Your task to perform on an android device: Open Google Maps Image 0: 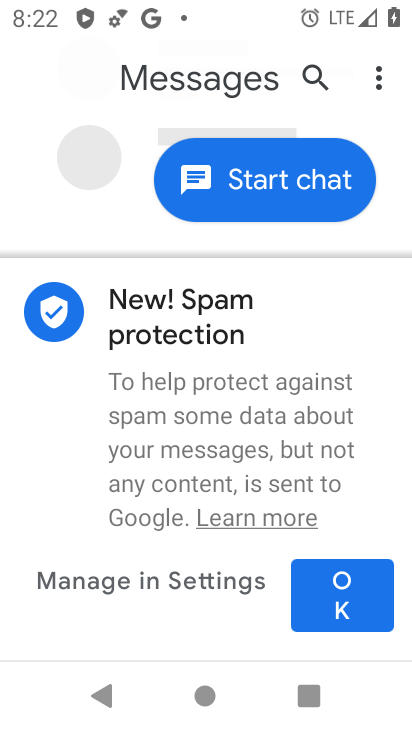
Step 0: press home button
Your task to perform on an android device: Open Google Maps Image 1: 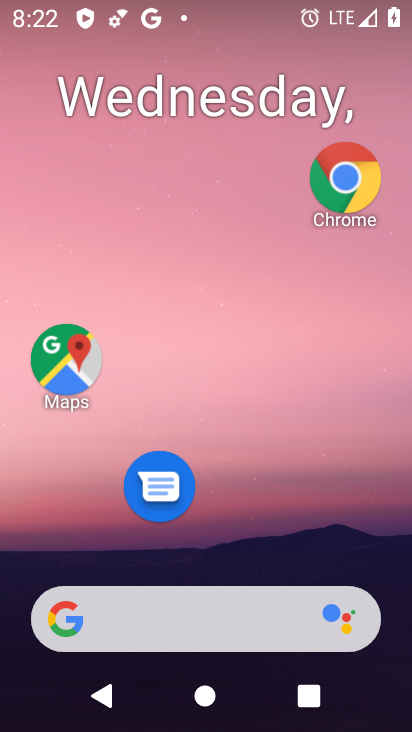
Step 1: drag from (172, 690) to (298, 178)
Your task to perform on an android device: Open Google Maps Image 2: 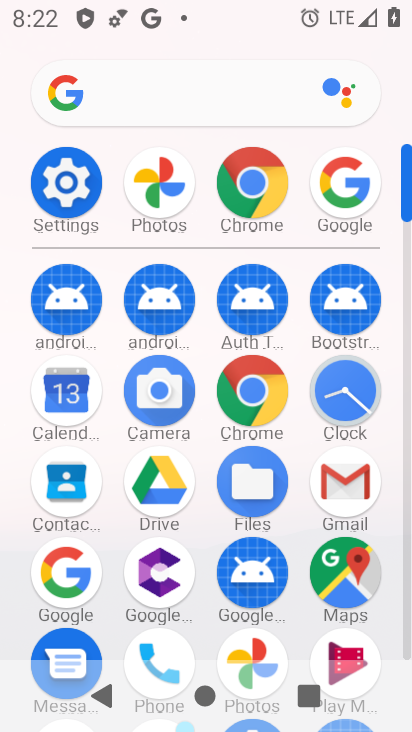
Step 2: drag from (214, 544) to (269, 286)
Your task to perform on an android device: Open Google Maps Image 3: 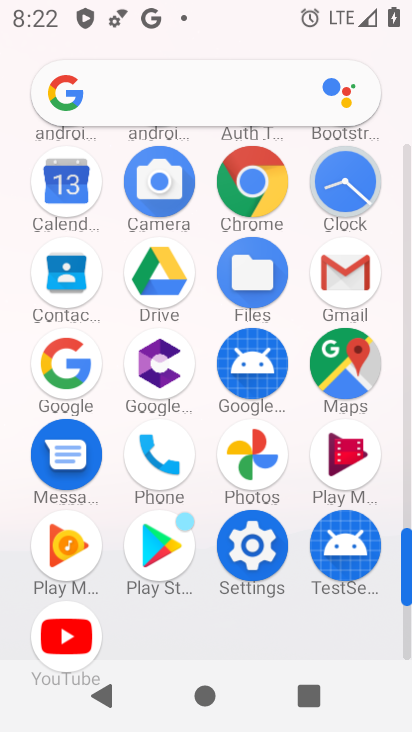
Step 3: click (346, 370)
Your task to perform on an android device: Open Google Maps Image 4: 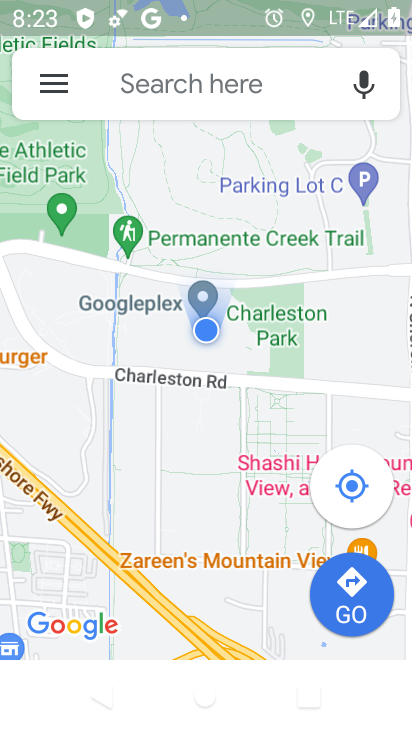
Step 4: task complete